Your task to perform on an android device: open app "Adobe Express: Graphic Design" (install if not already installed) and go to login screen Image 0: 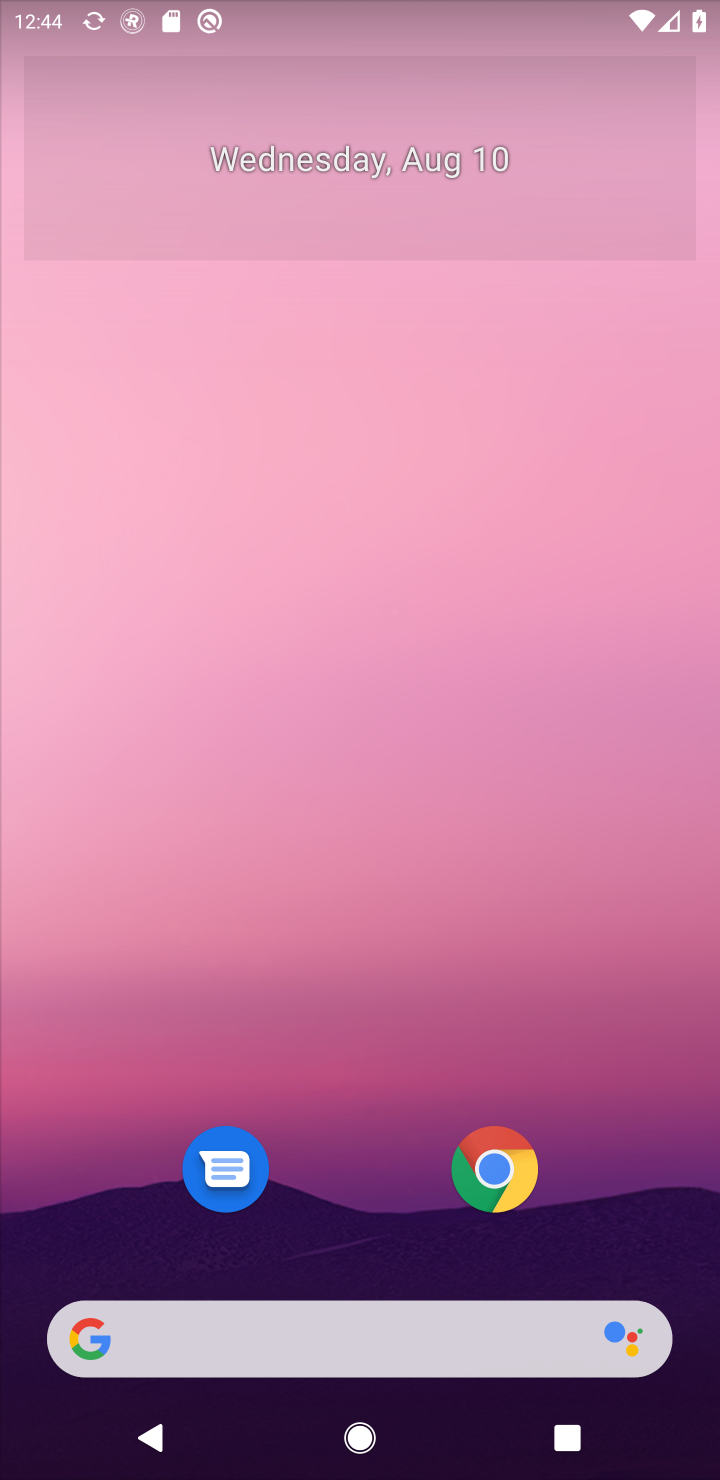
Step 0: drag from (607, 837) to (609, 136)
Your task to perform on an android device: open app "Adobe Express: Graphic Design" (install if not already installed) and go to login screen Image 1: 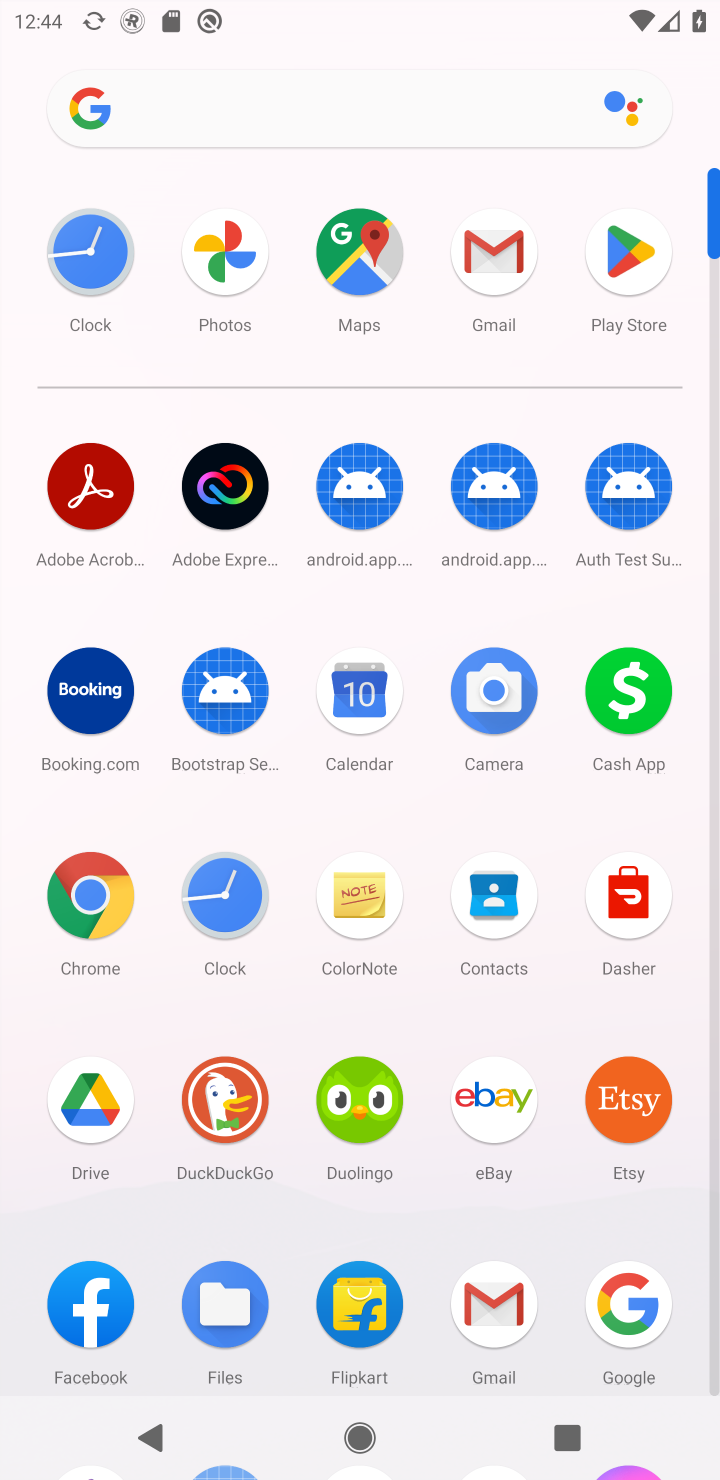
Step 1: click (635, 284)
Your task to perform on an android device: open app "Adobe Express: Graphic Design" (install if not already installed) and go to login screen Image 2: 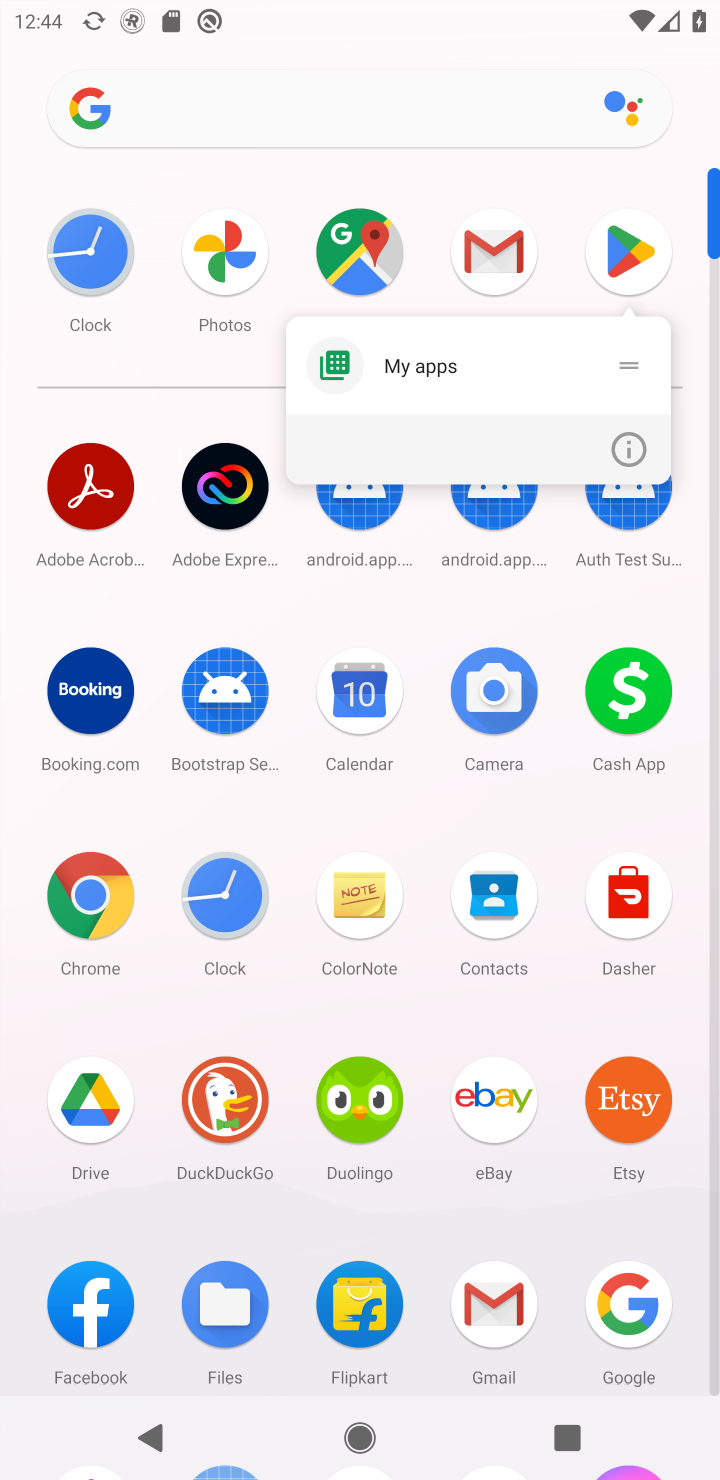
Step 2: click (642, 246)
Your task to perform on an android device: open app "Adobe Express: Graphic Design" (install if not already installed) and go to login screen Image 3: 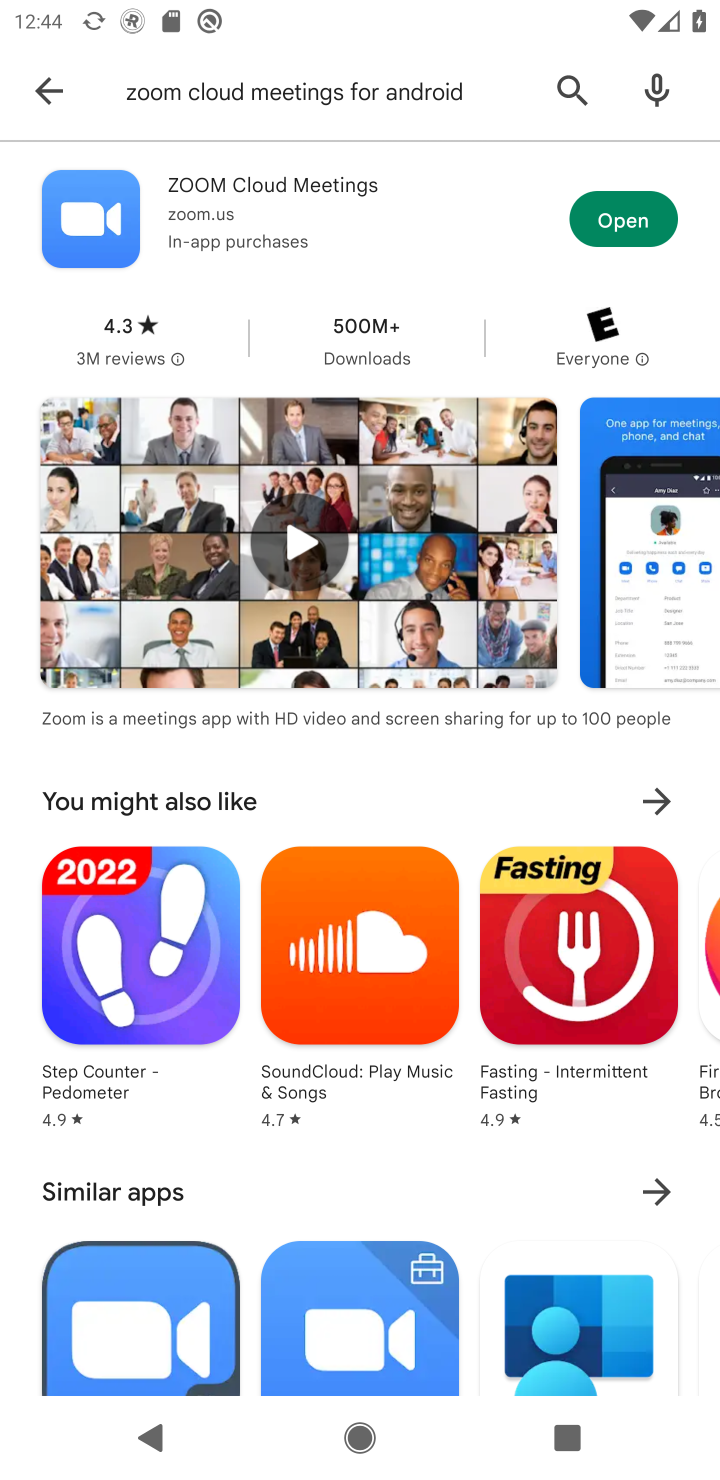
Step 3: click (568, 91)
Your task to perform on an android device: open app "Adobe Express: Graphic Design" (install if not already installed) and go to login screen Image 4: 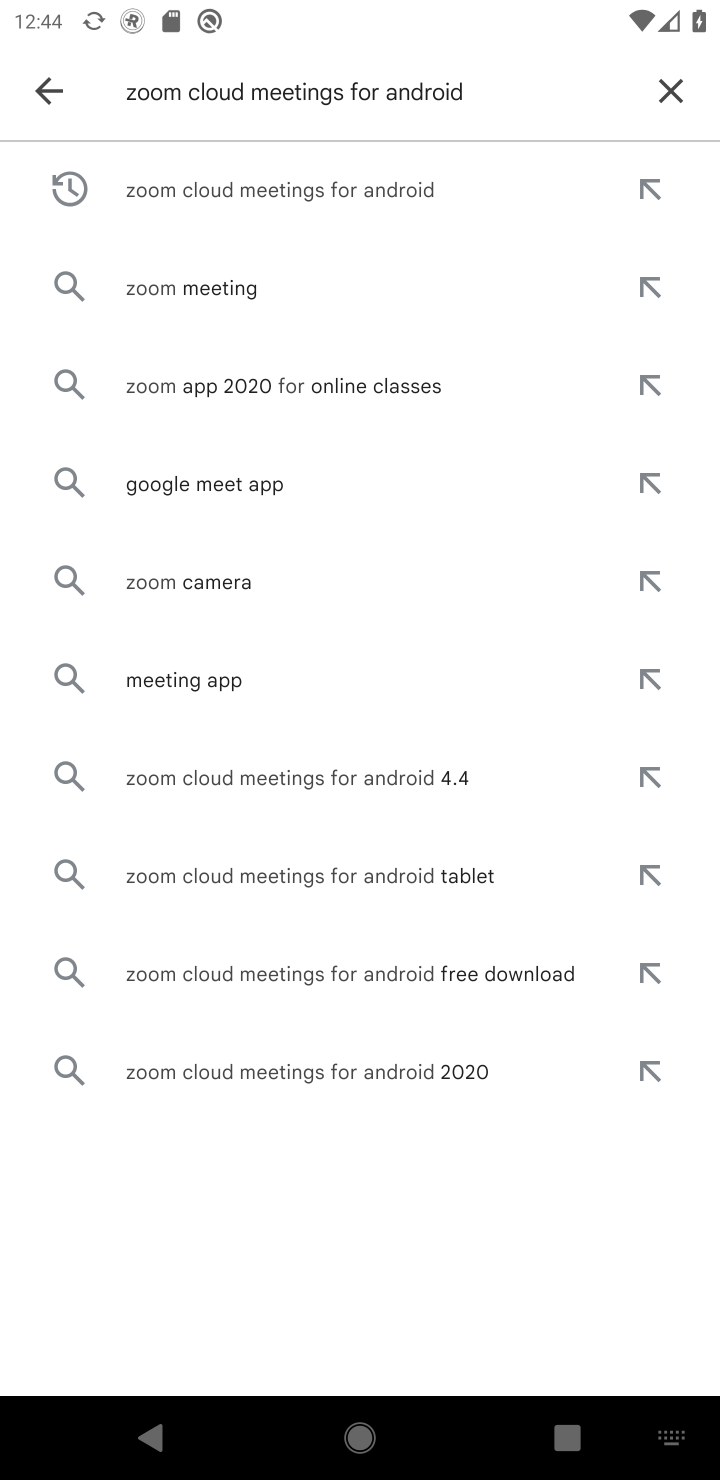
Step 4: click (673, 97)
Your task to perform on an android device: open app "Adobe Express: Graphic Design" (install if not already installed) and go to login screen Image 5: 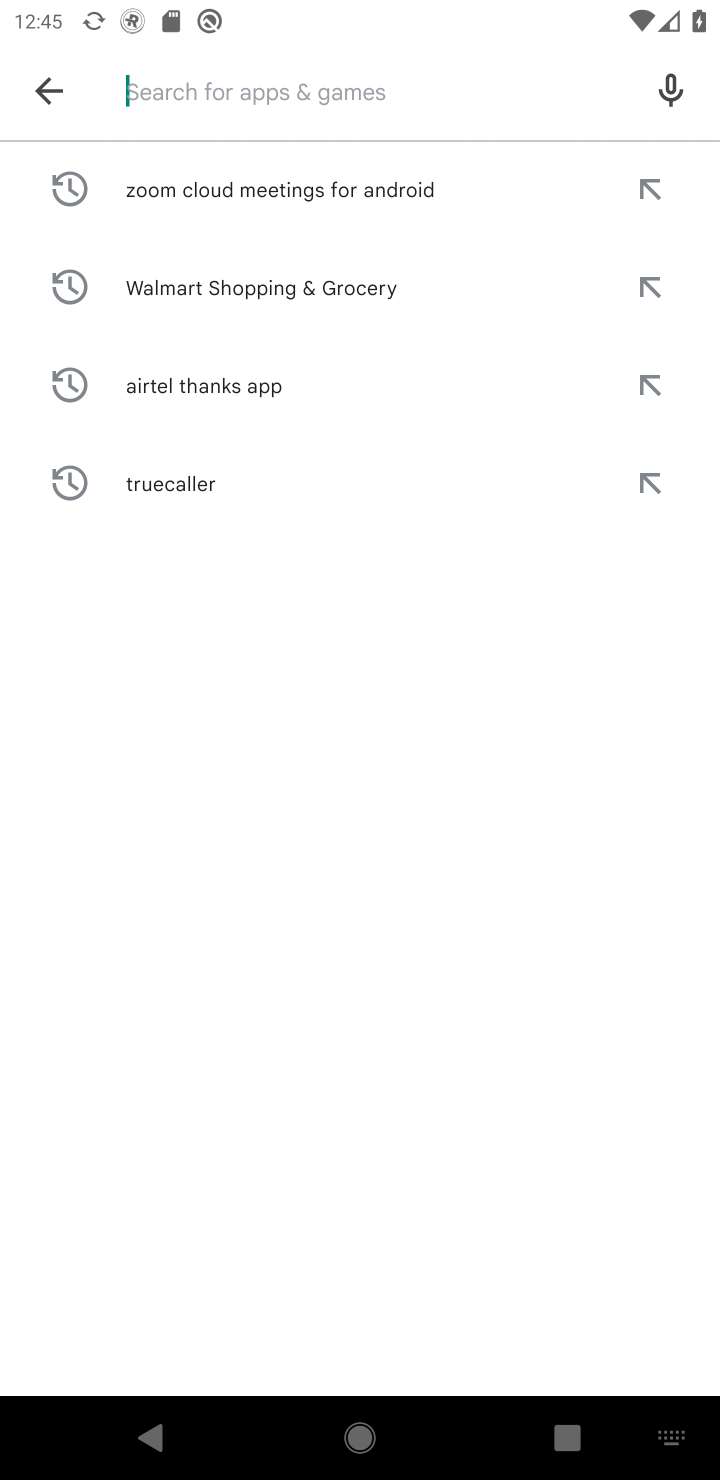
Step 5: type "Adobe Express: Graphic Design"
Your task to perform on an android device: open app "Adobe Express: Graphic Design" (install if not already installed) and go to login screen Image 6: 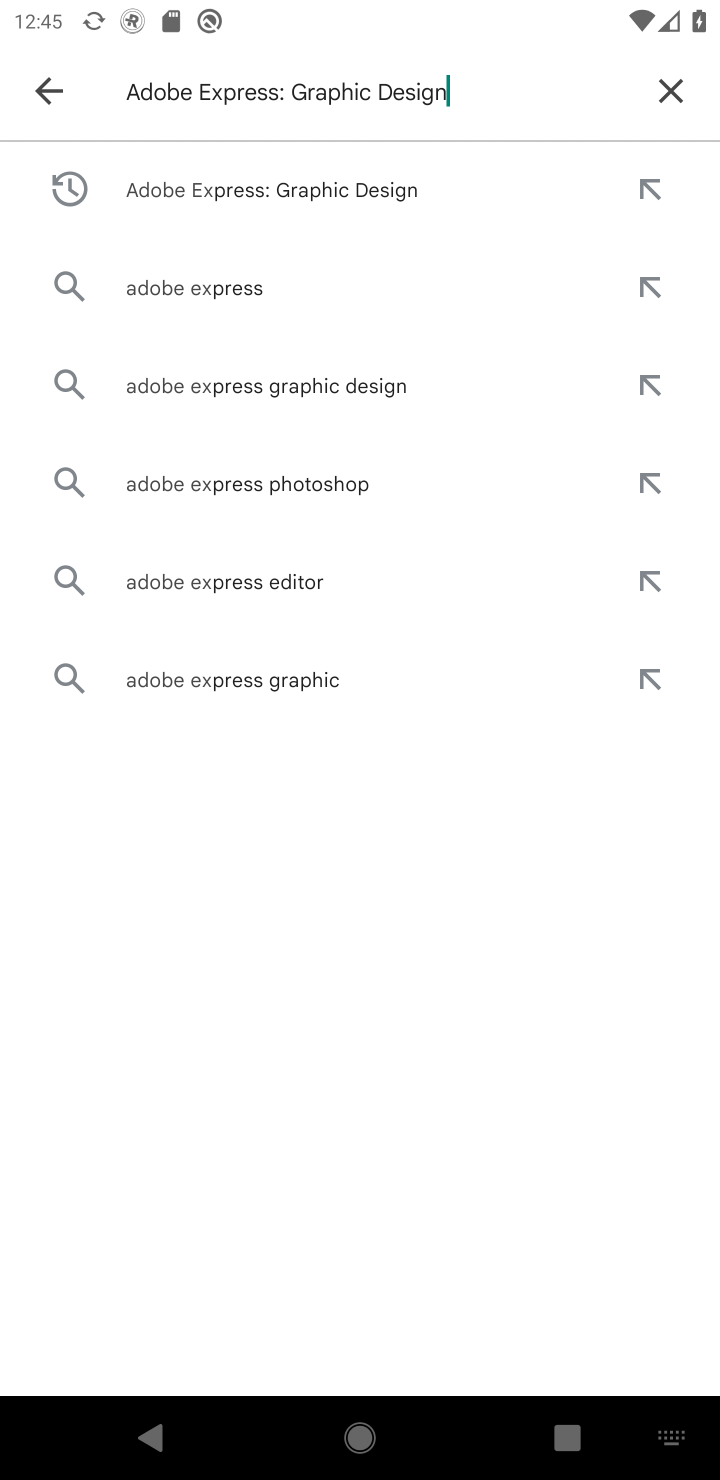
Step 6: press enter
Your task to perform on an android device: open app "Adobe Express: Graphic Design" (install if not already installed) and go to login screen Image 7: 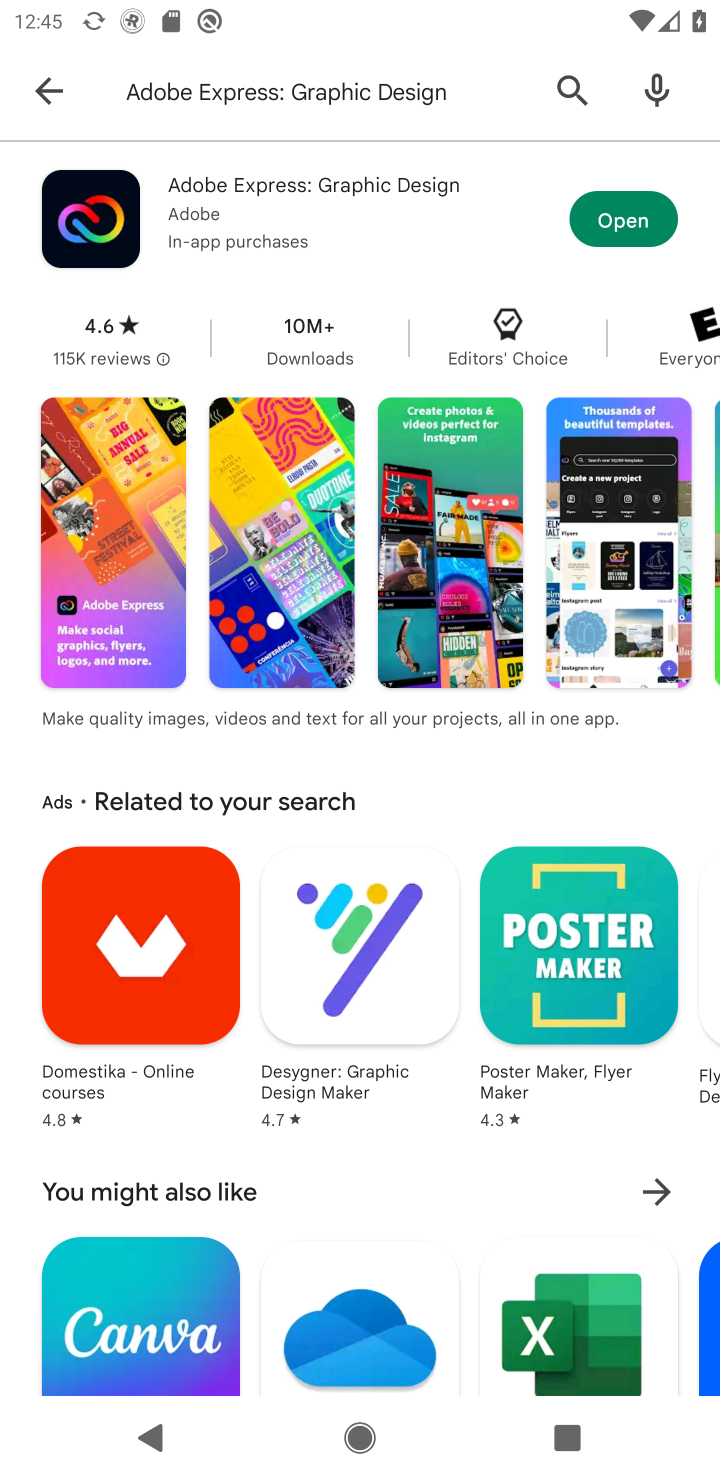
Step 7: click (639, 220)
Your task to perform on an android device: open app "Adobe Express: Graphic Design" (install if not already installed) and go to login screen Image 8: 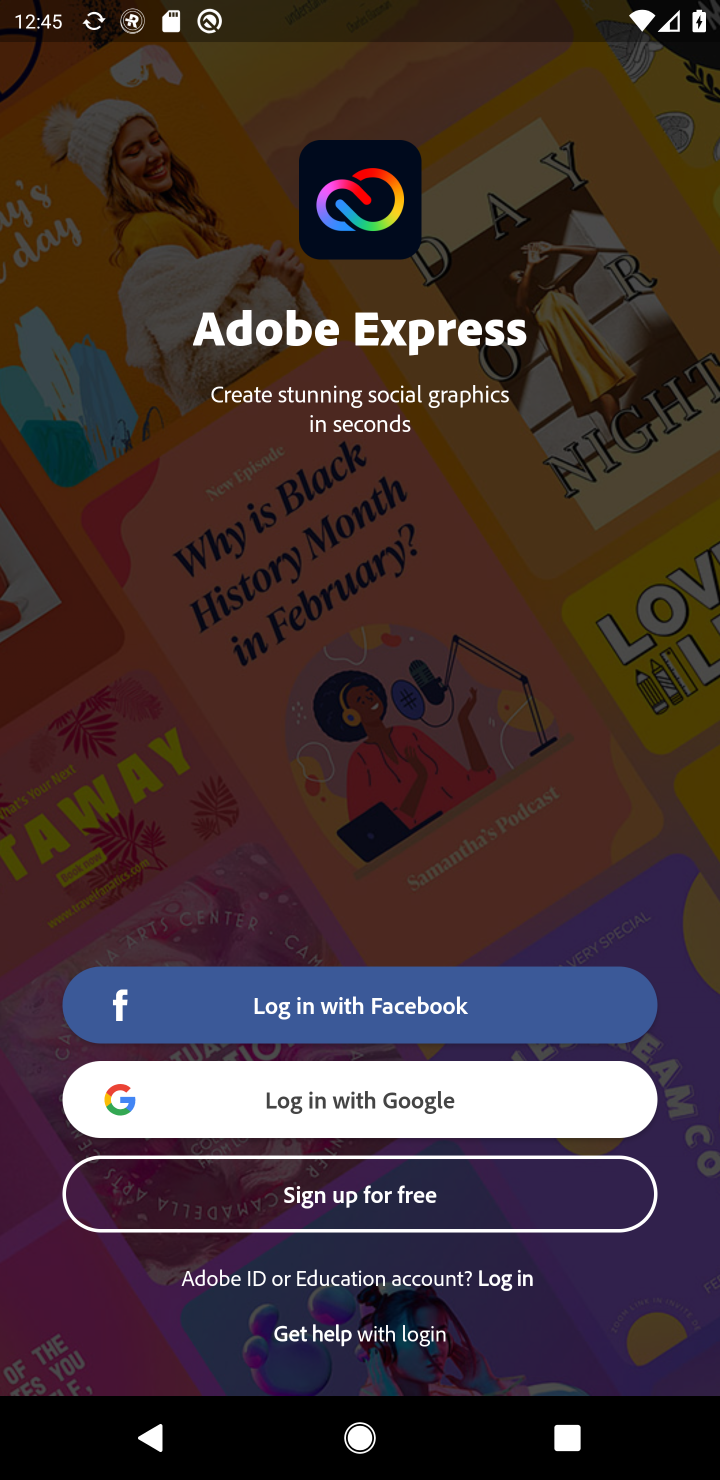
Step 8: task complete